Your task to perform on an android device: Go to battery settings Image 0: 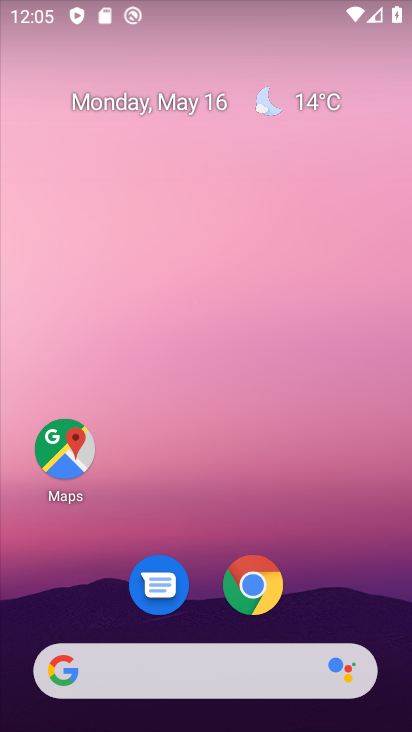
Step 0: drag from (220, 471) to (186, 51)
Your task to perform on an android device: Go to battery settings Image 1: 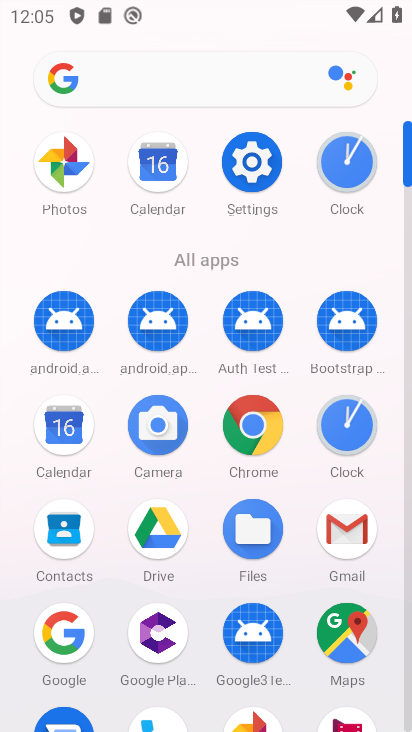
Step 1: click (250, 157)
Your task to perform on an android device: Go to battery settings Image 2: 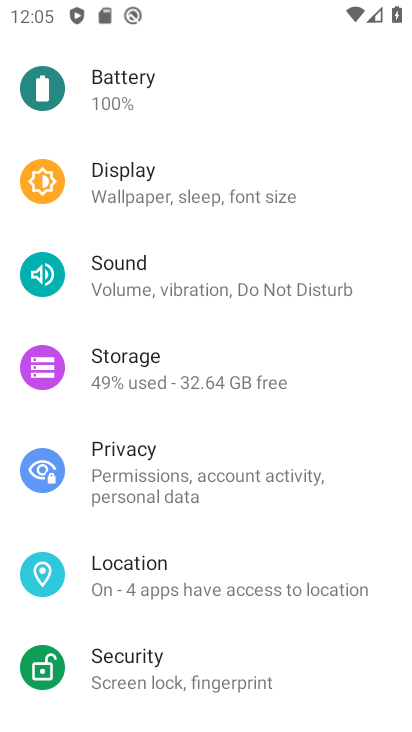
Step 2: click (208, 66)
Your task to perform on an android device: Go to battery settings Image 3: 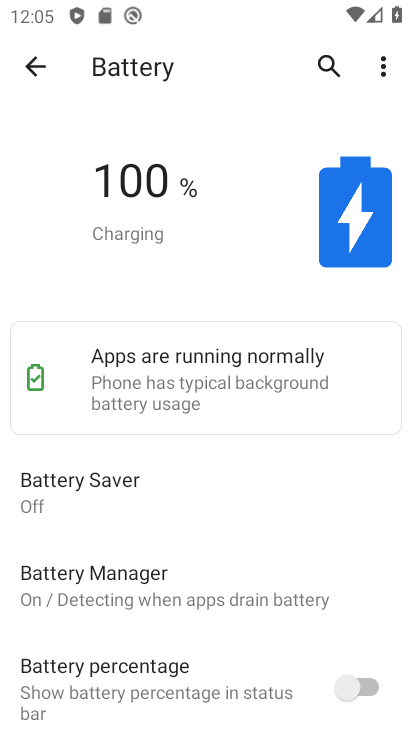
Step 3: task complete